Your task to perform on an android device: Go to notification settings Image 0: 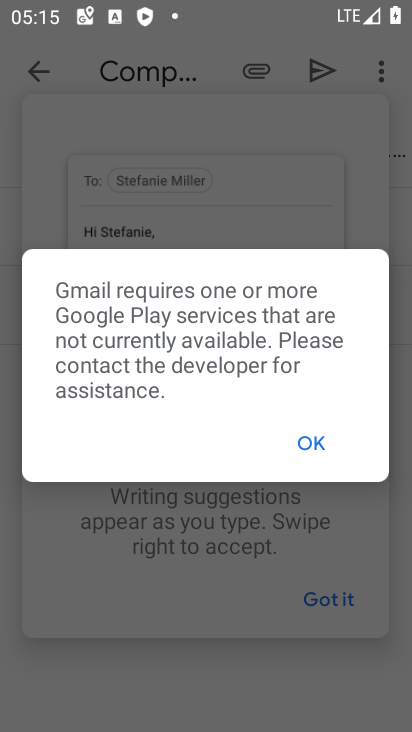
Step 0: press home button
Your task to perform on an android device: Go to notification settings Image 1: 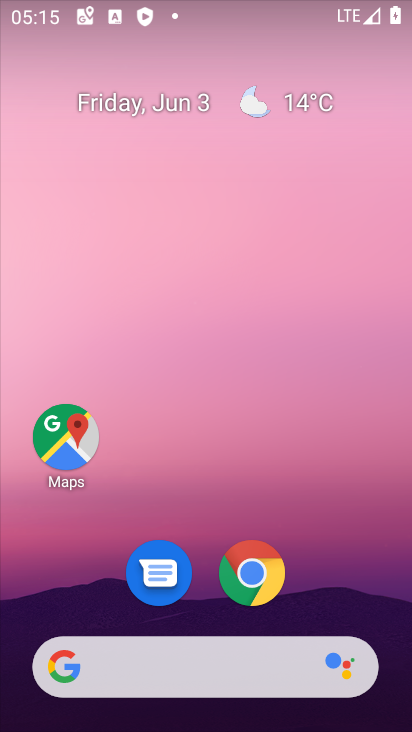
Step 1: drag from (361, 583) to (330, 3)
Your task to perform on an android device: Go to notification settings Image 2: 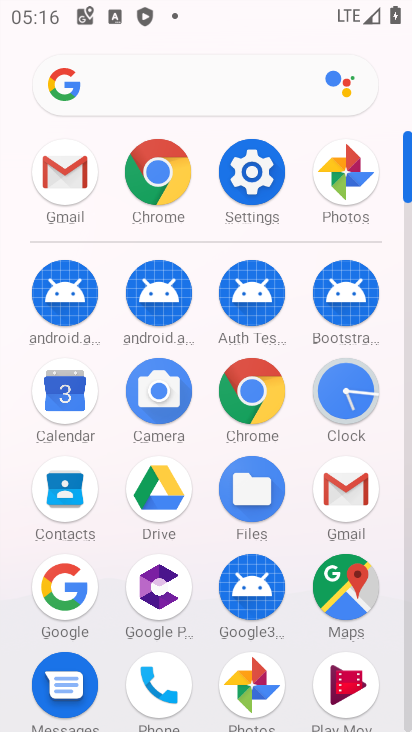
Step 2: click (263, 197)
Your task to perform on an android device: Go to notification settings Image 3: 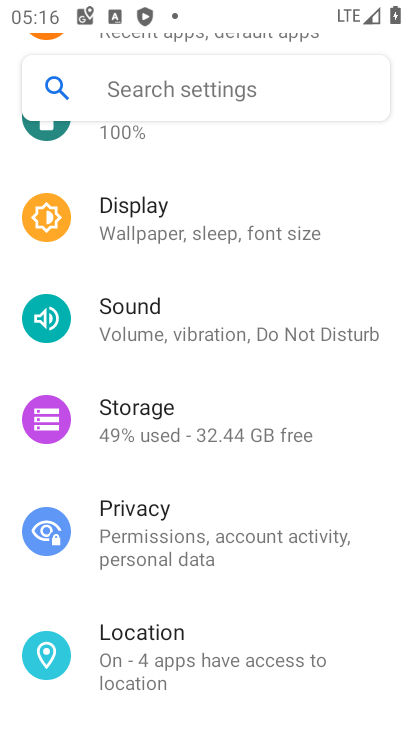
Step 3: drag from (290, 240) to (278, 473)
Your task to perform on an android device: Go to notification settings Image 4: 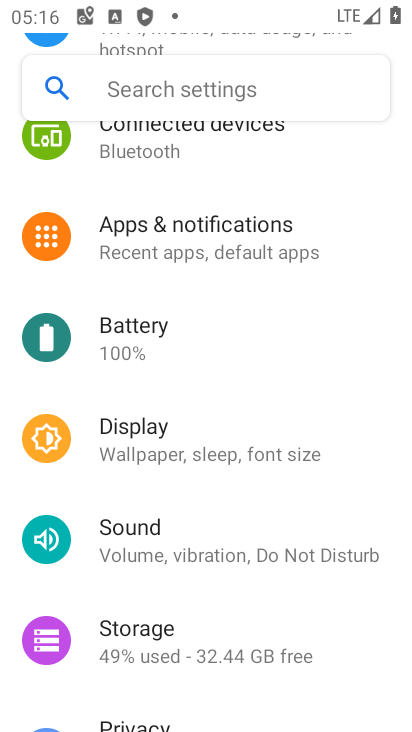
Step 4: click (238, 239)
Your task to perform on an android device: Go to notification settings Image 5: 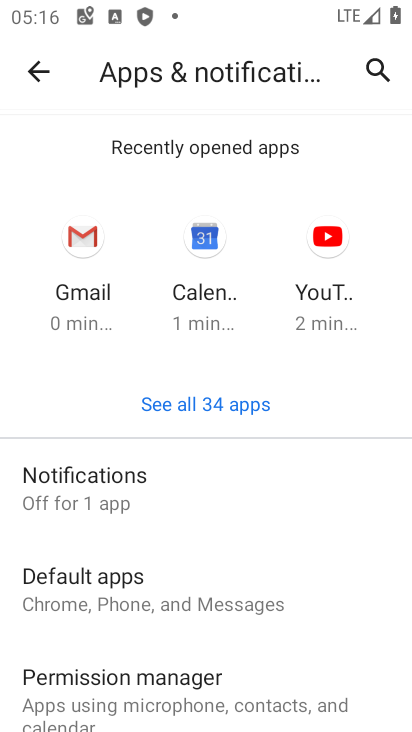
Step 5: click (152, 489)
Your task to perform on an android device: Go to notification settings Image 6: 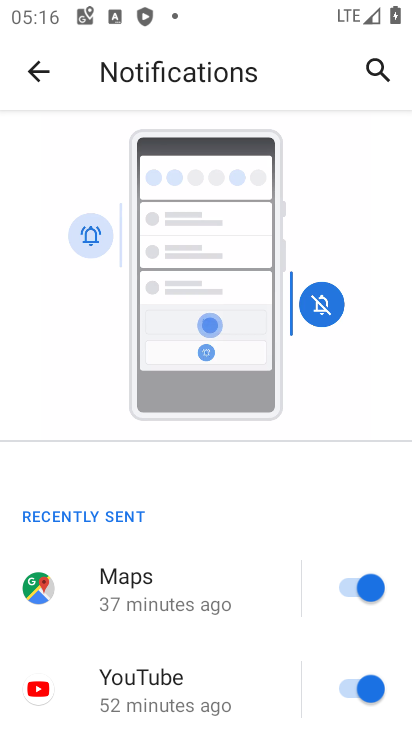
Step 6: task complete